Your task to perform on an android device: turn on wifi Image 0: 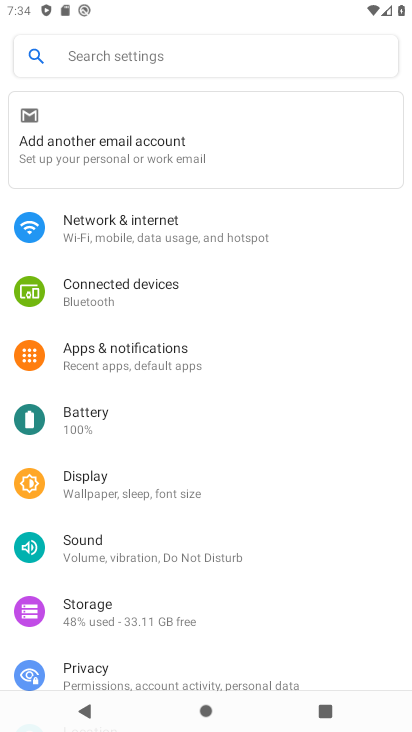
Step 0: click (129, 241)
Your task to perform on an android device: turn on wifi Image 1: 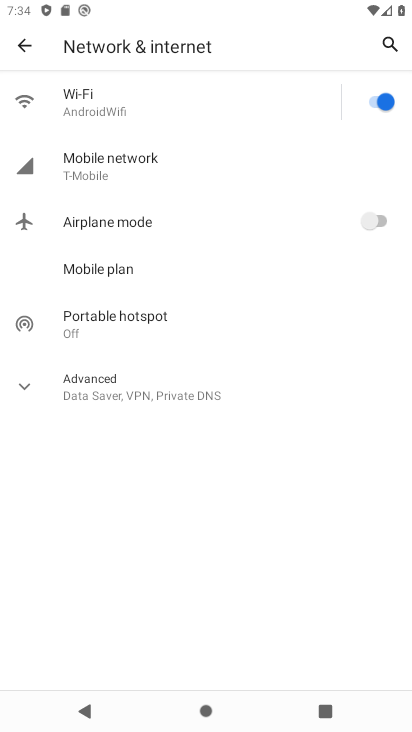
Step 1: task complete